Your task to perform on an android device: open a bookmark in the chrome app Image 0: 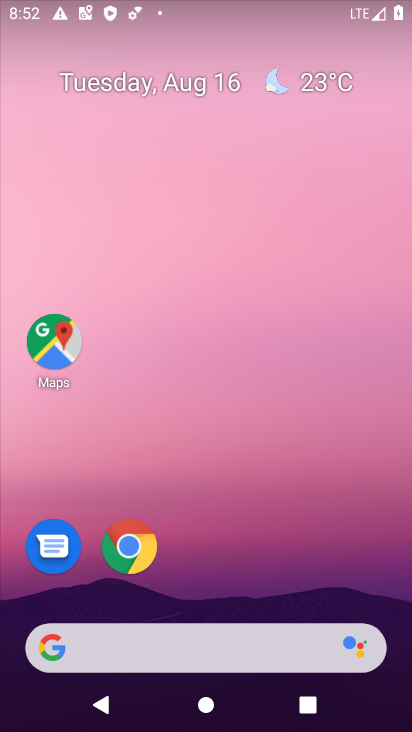
Step 0: click (126, 549)
Your task to perform on an android device: open a bookmark in the chrome app Image 1: 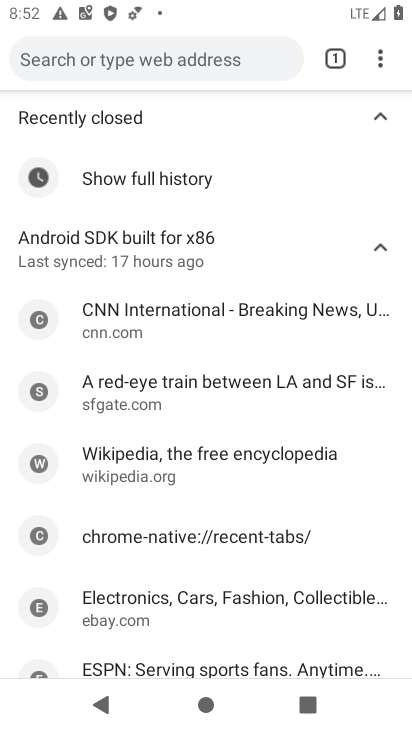
Step 1: click (383, 64)
Your task to perform on an android device: open a bookmark in the chrome app Image 2: 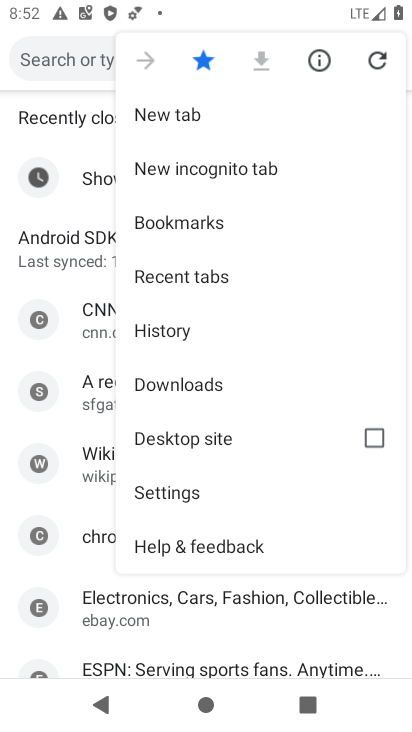
Step 2: click (219, 217)
Your task to perform on an android device: open a bookmark in the chrome app Image 3: 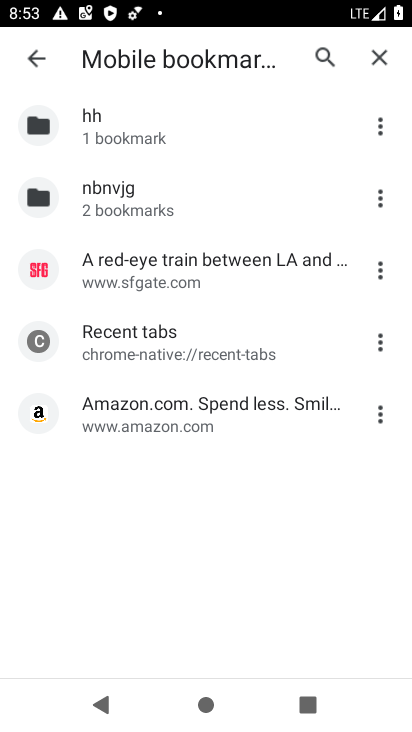
Step 3: click (181, 262)
Your task to perform on an android device: open a bookmark in the chrome app Image 4: 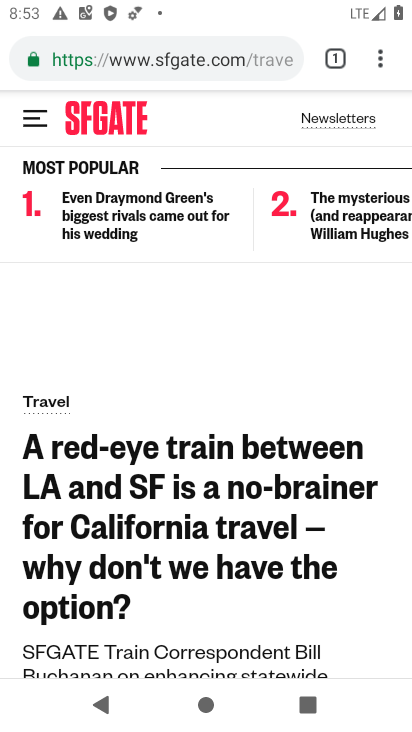
Step 4: task complete